Your task to perform on an android device: Clear the shopping cart on ebay. Search for dell xps on ebay, select the first entry, and add it to the cart. Image 0: 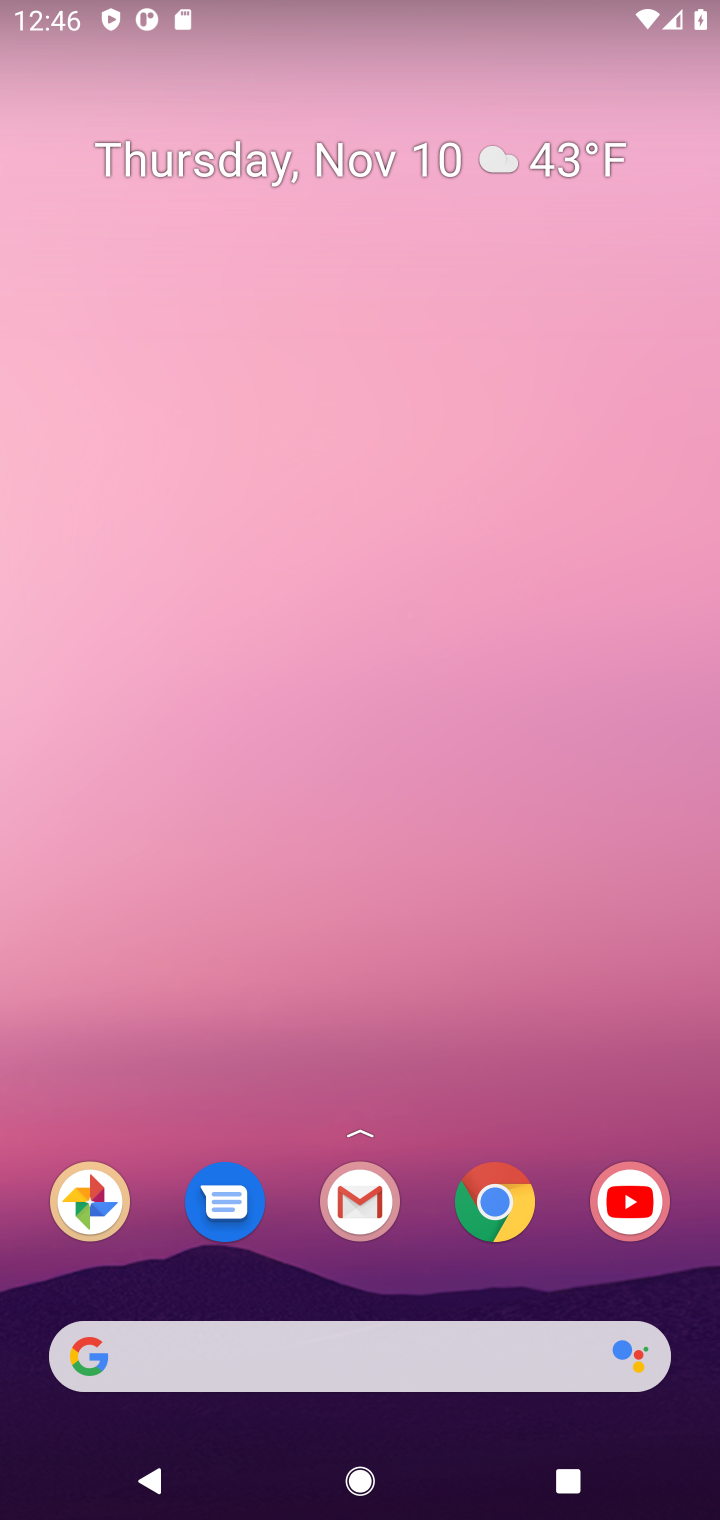
Step 0: click (494, 1191)
Your task to perform on an android device: Clear the shopping cart on ebay. Search for dell xps on ebay, select the first entry, and add it to the cart. Image 1: 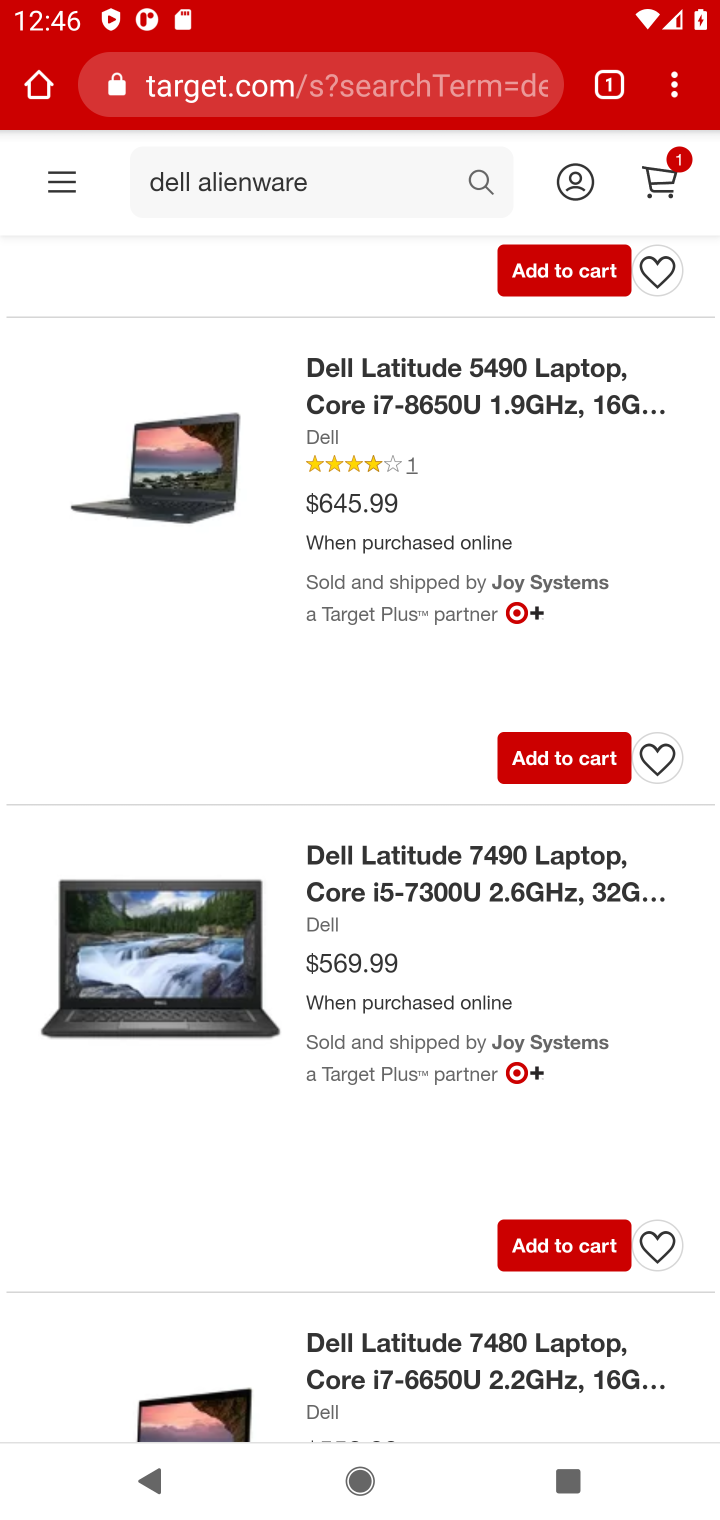
Step 1: click (450, 83)
Your task to perform on an android device: Clear the shopping cart on ebay. Search for dell xps on ebay, select the first entry, and add it to the cart. Image 2: 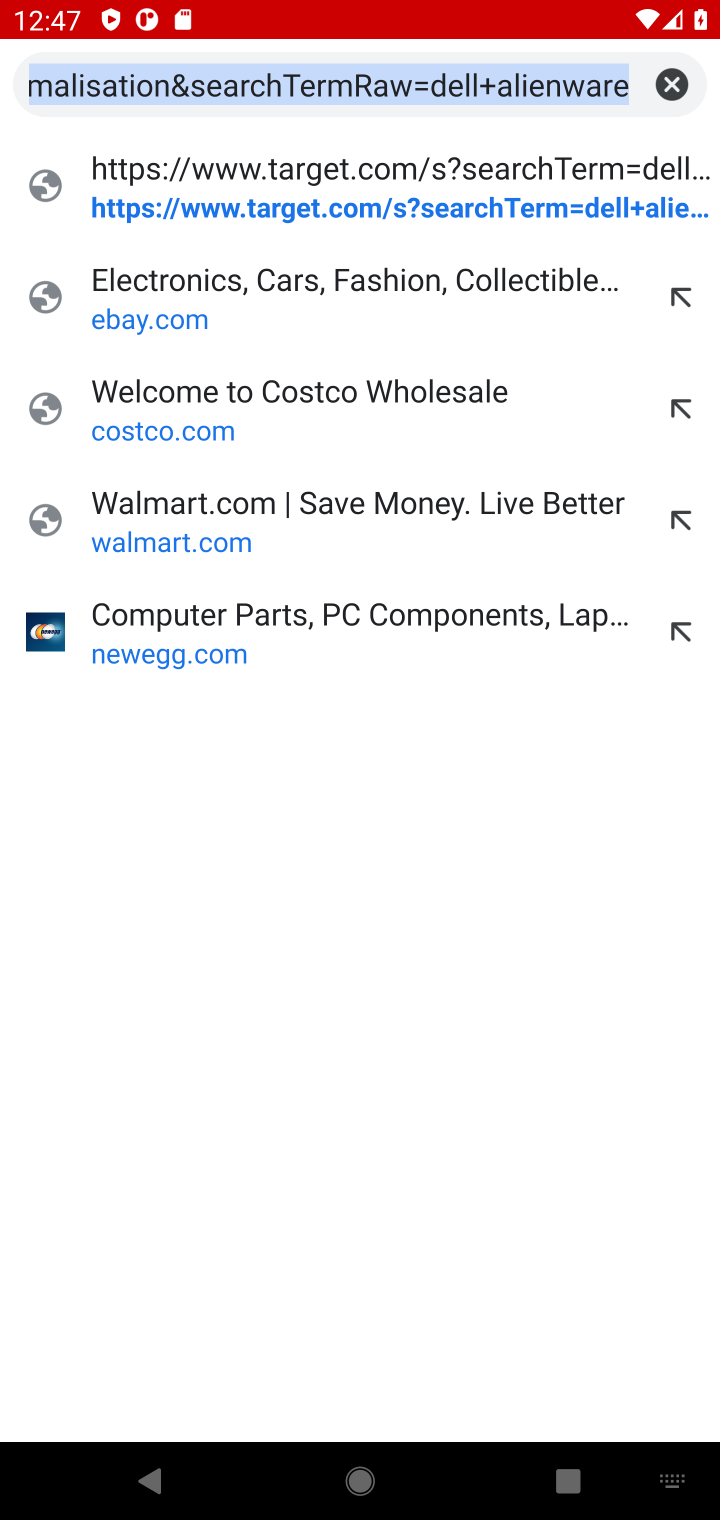
Step 2: click (427, 265)
Your task to perform on an android device: Clear the shopping cart on ebay. Search for dell xps on ebay, select the first entry, and add it to the cart. Image 3: 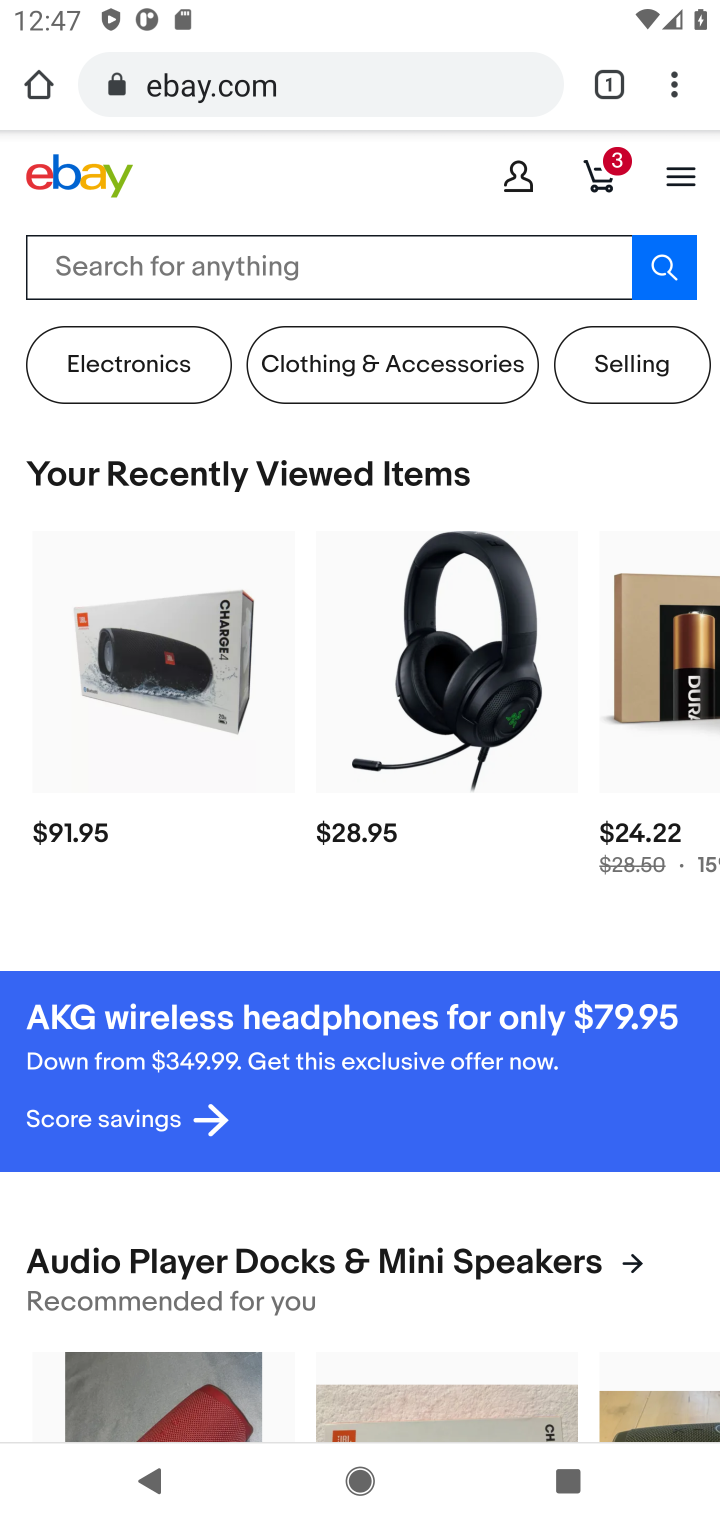
Step 3: click (599, 173)
Your task to perform on an android device: Clear the shopping cart on ebay. Search for dell xps on ebay, select the first entry, and add it to the cart. Image 4: 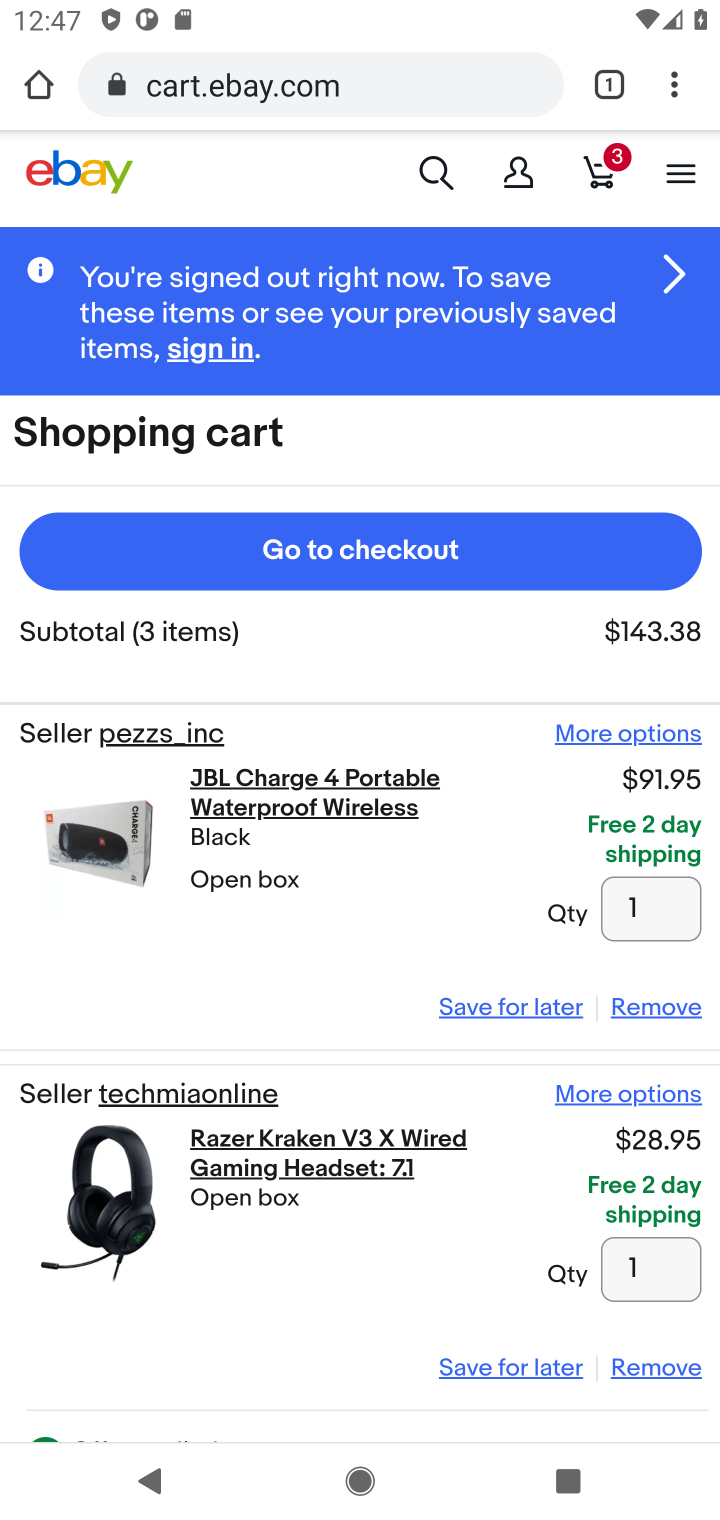
Step 4: click (654, 1003)
Your task to perform on an android device: Clear the shopping cart on ebay. Search for dell xps on ebay, select the first entry, and add it to the cart. Image 5: 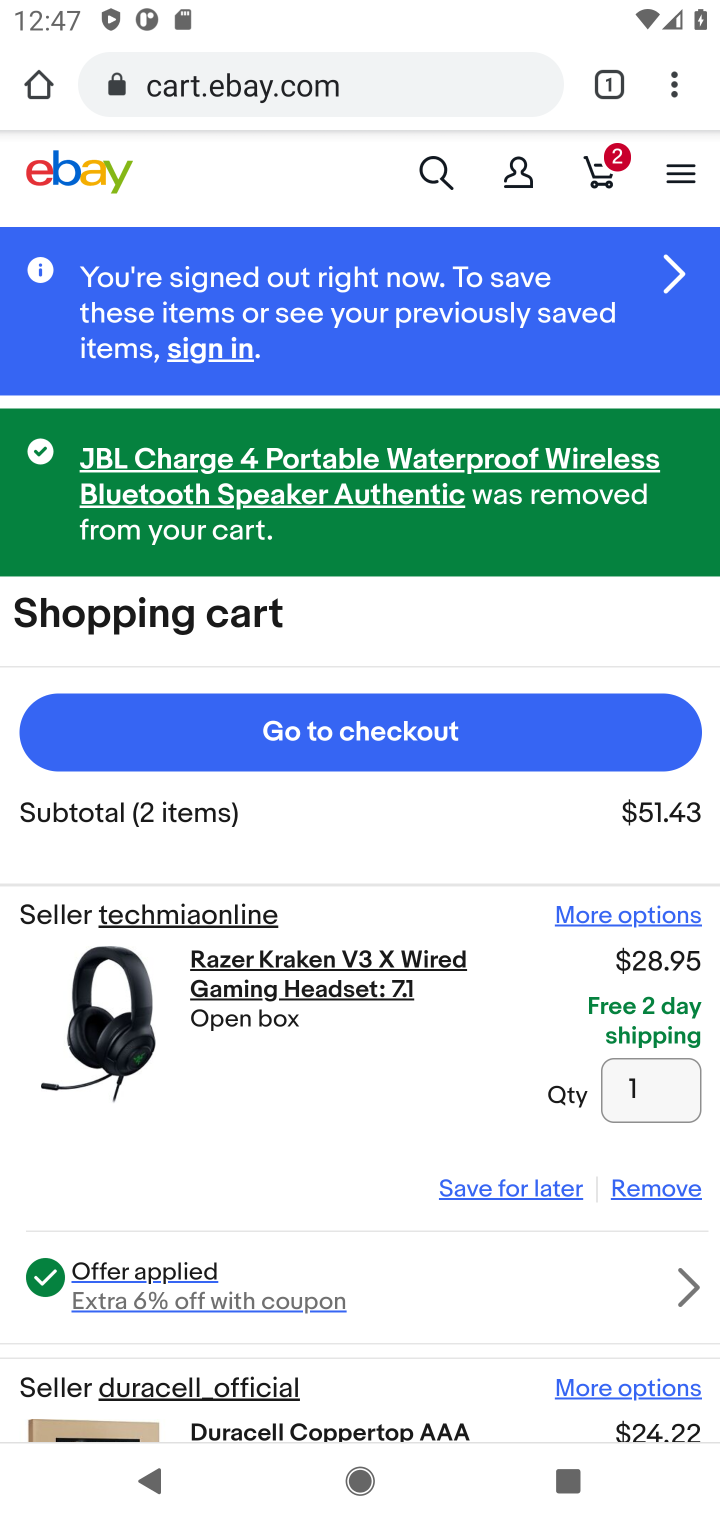
Step 5: click (651, 1189)
Your task to perform on an android device: Clear the shopping cart on ebay. Search for dell xps on ebay, select the first entry, and add it to the cart. Image 6: 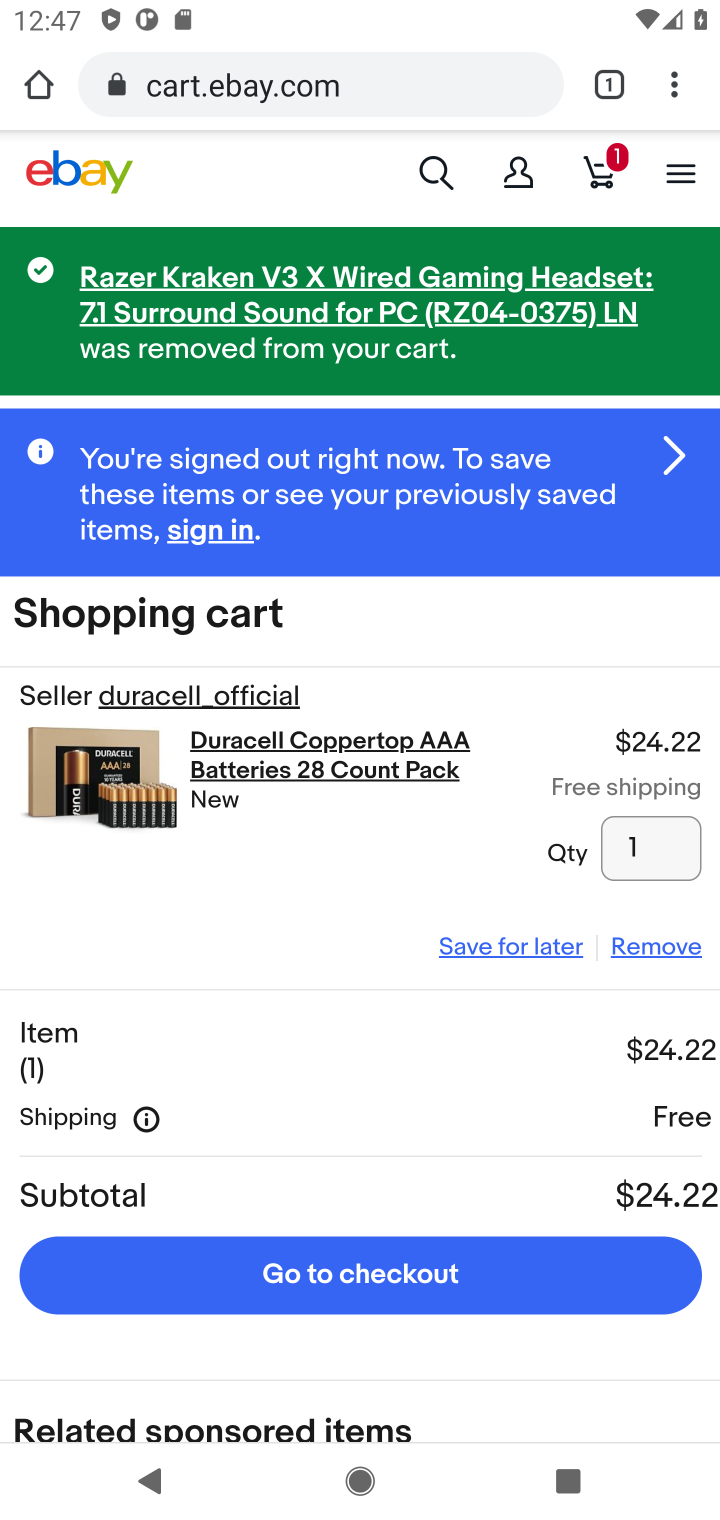
Step 6: click (650, 942)
Your task to perform on an android device: Clear the shopping cart on ebay. Search for dell xps on ebay, select the first entry, and add it to the cart. Image 7: 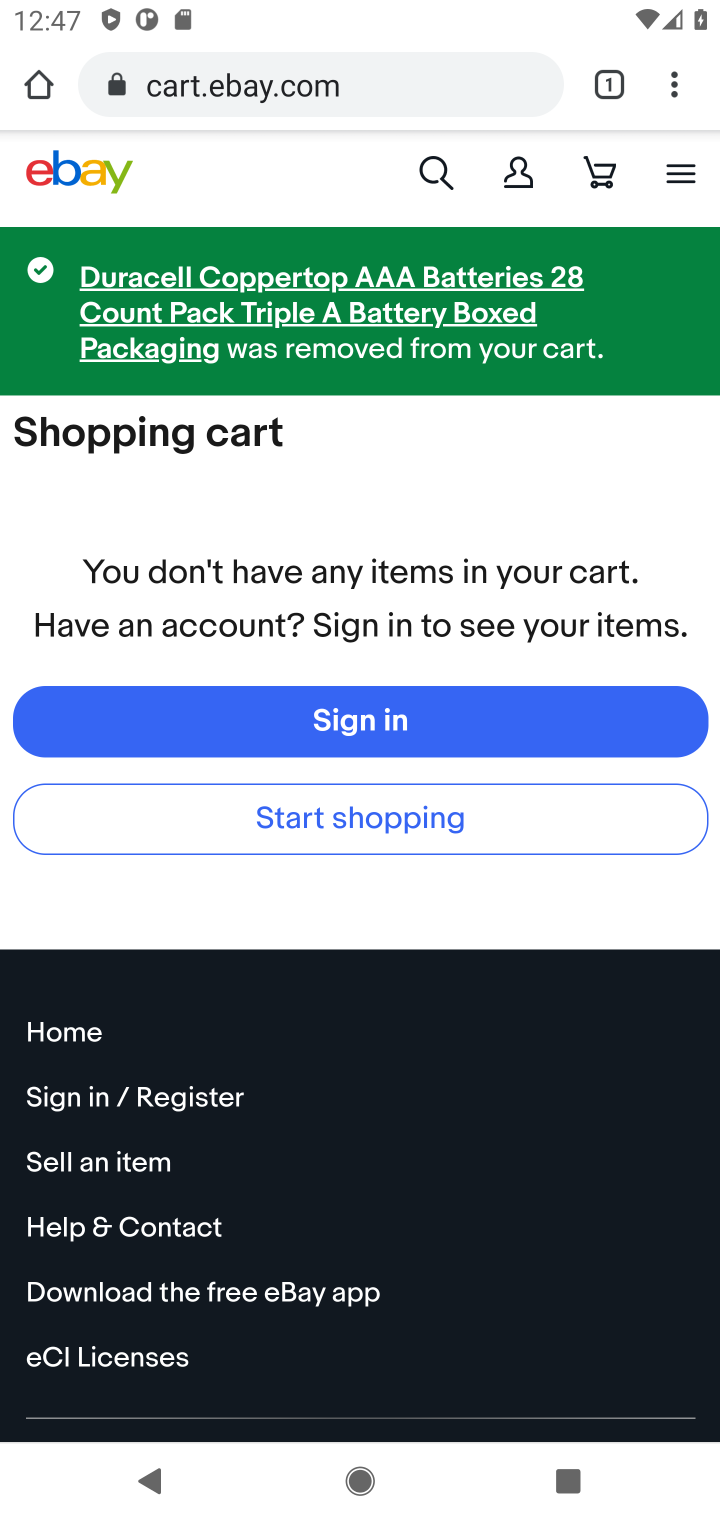
Step 7: click (425, 153)
Your task to perform on an android device: Clear the shopping cart on ebay. Search for dell xps on ebay, select the first entry, and add it to the cart. Image 8: 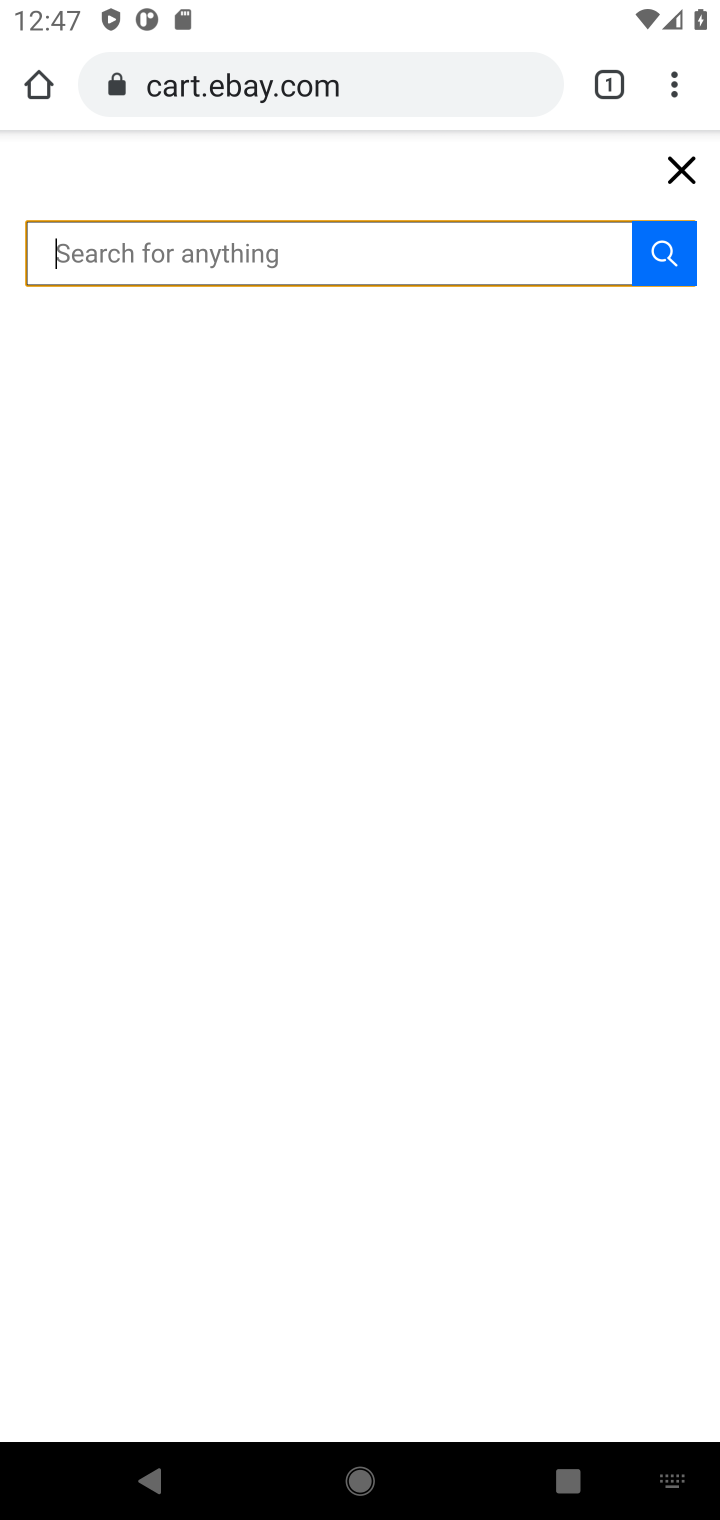
Step 8: type "dell xps "
Your task to perform on an android device: Clear the shopping cart on ebay. Search for dell xps on ebay, select the first entry, and add it to the cart. Image 9: 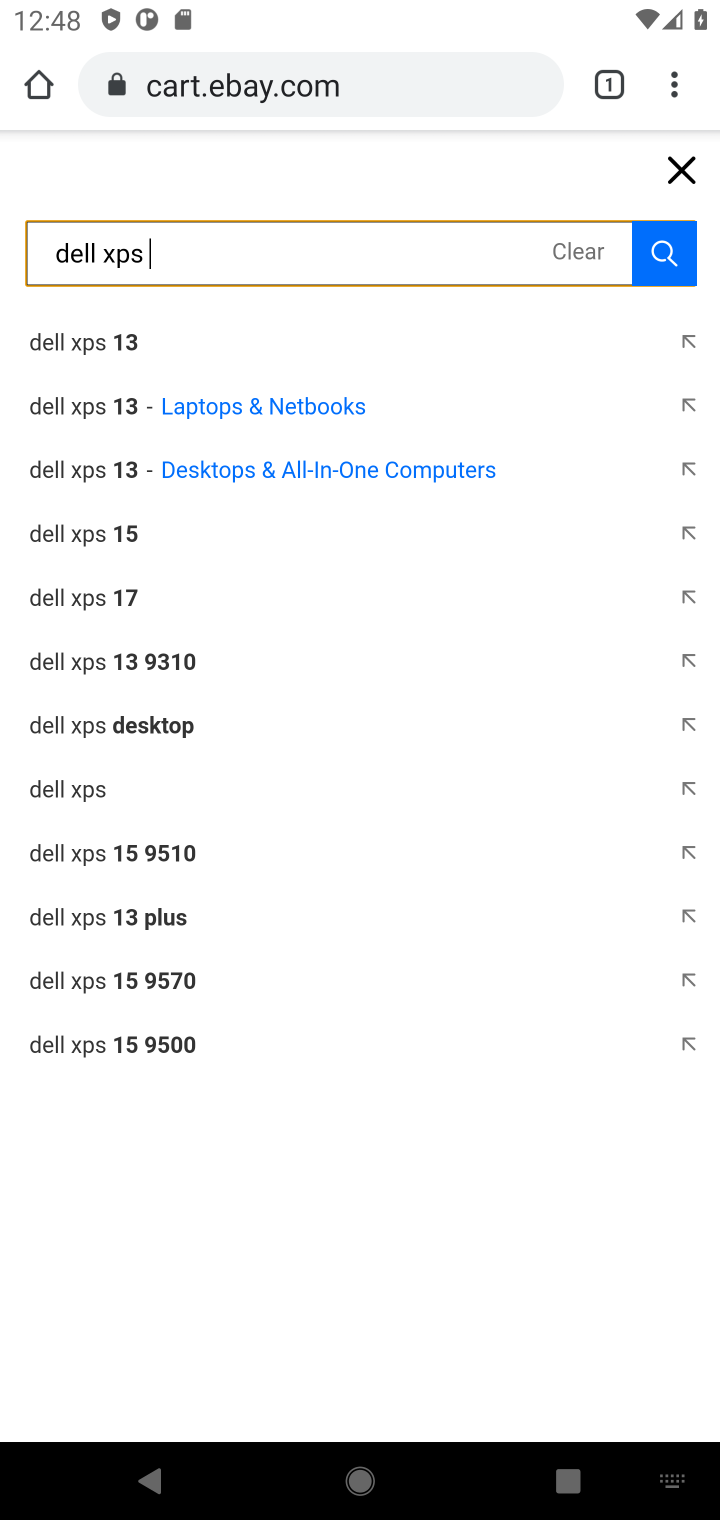
Step 9: click (77, 776)
Your task to perform on an android device: Clear the shopping cart on ebay. Search for dell xps on ebay, select the first entry, and add it to the cart. Image 10: 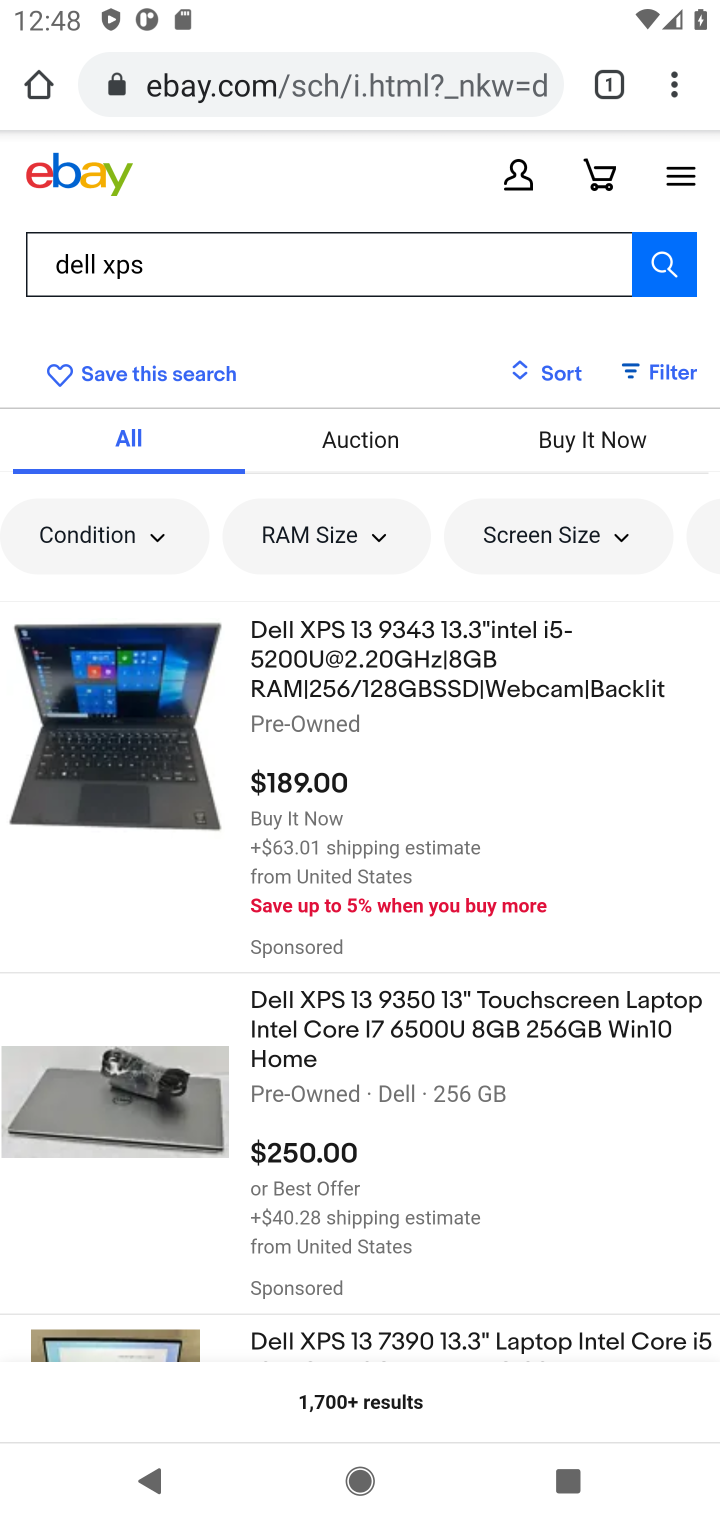
Step 10: click (138, 718)
Your task to perform on an android device: Clear the shopping cart on ebay. Search for dell xps on ebay, select the first entry, and add it to the cart. Image 11: 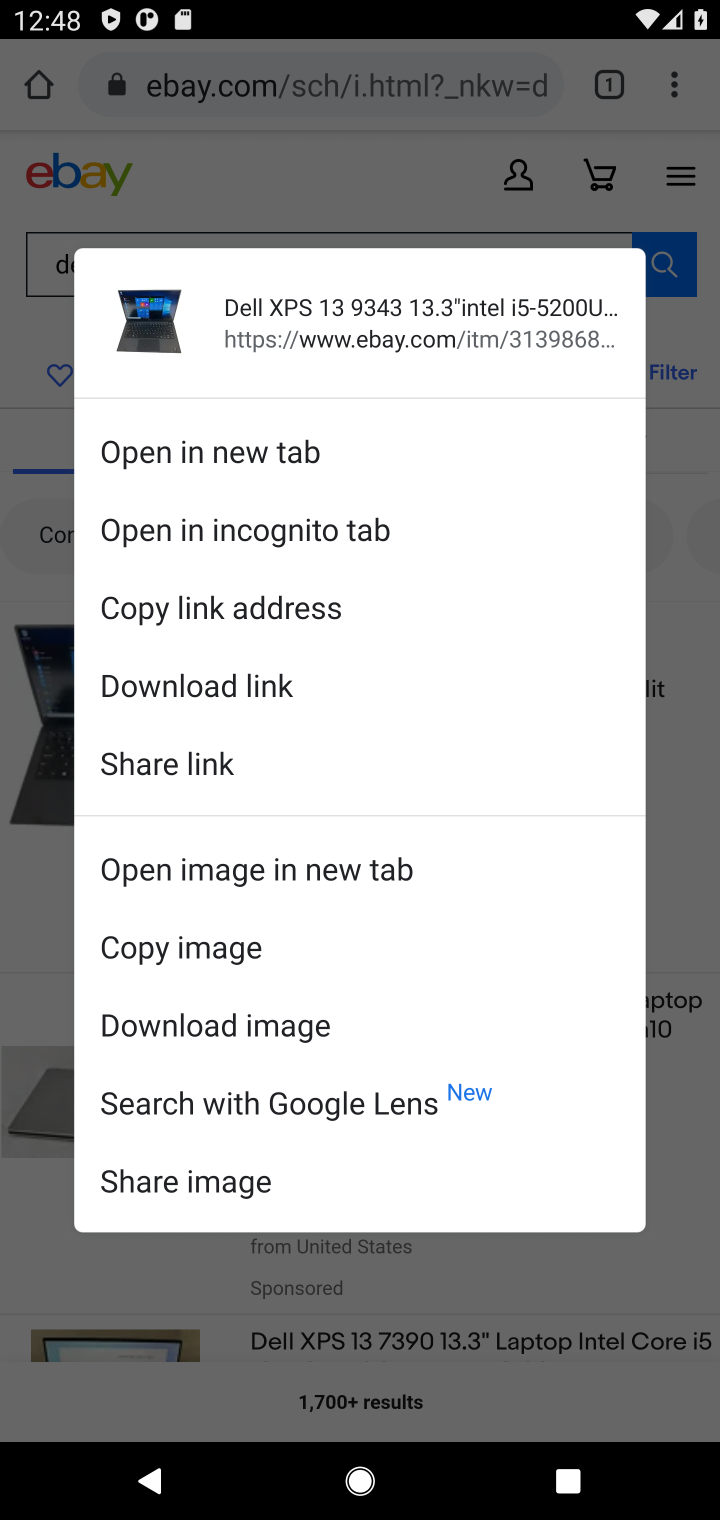
Step 11: click (58, 692)
Your task to perform on an android device: Clear the shopping cart on ebay. Search for dell xps on ebay, select the first entry, and add it to the cart. Image 12: 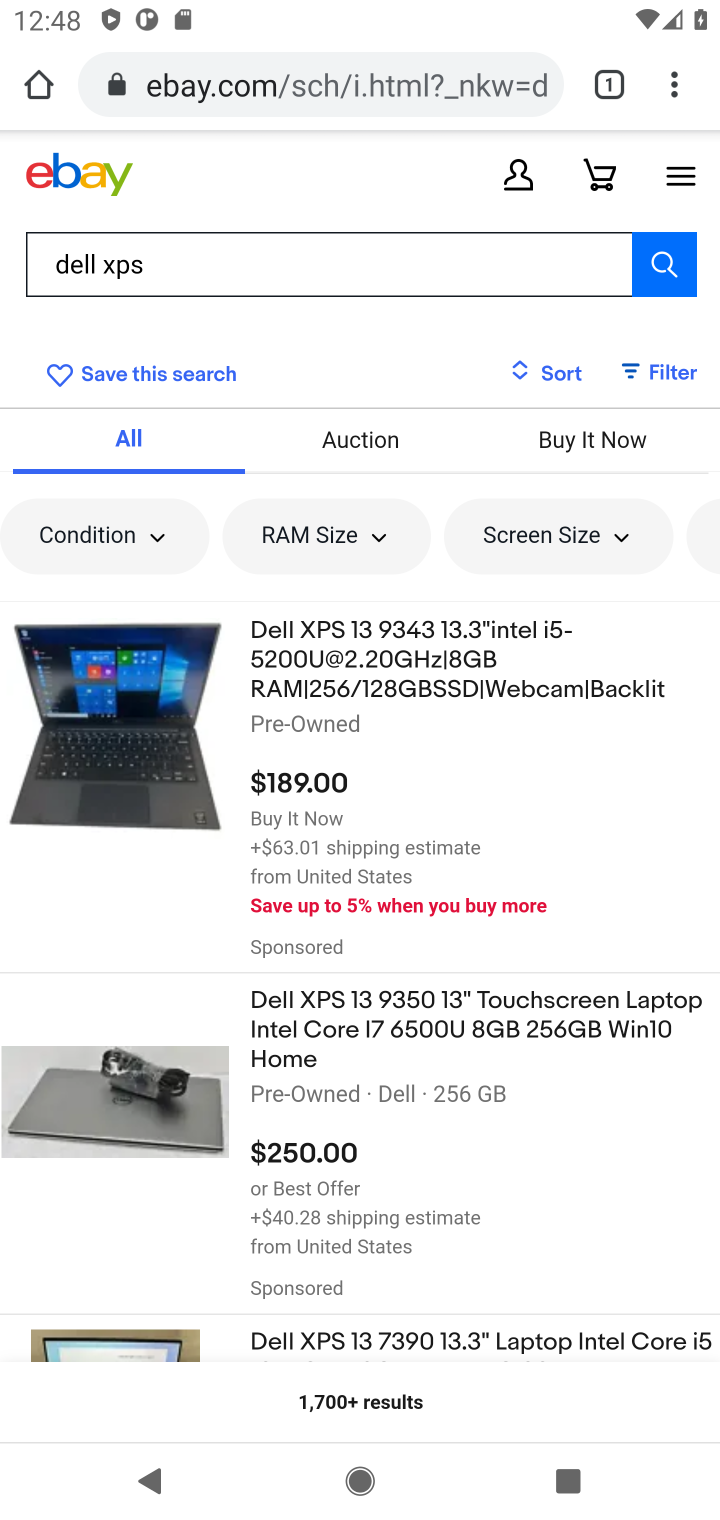
Step 12: click (58, 692)
Your task to perform on an android device: Clear the shopping cart on ebay. Search for dell xps on ebay, select the first entry, and add it to the cart. Image 13: 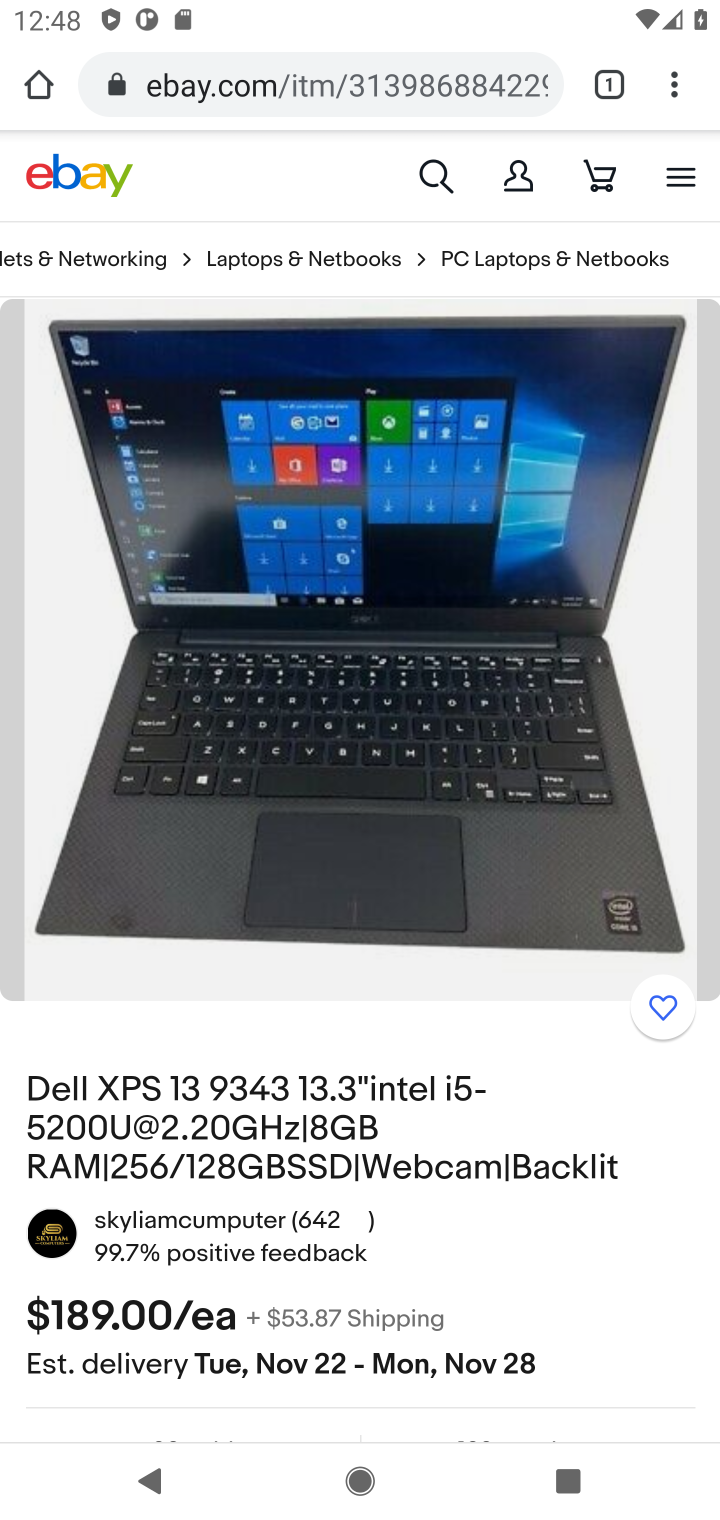
Step 13: drag from (554, 960) to (525, 561)
Your task to perform on an android device: Clear the shopping cart on ebay. Search for dell xps on ebay, select the first entry, and add it to the cart. Image 14: 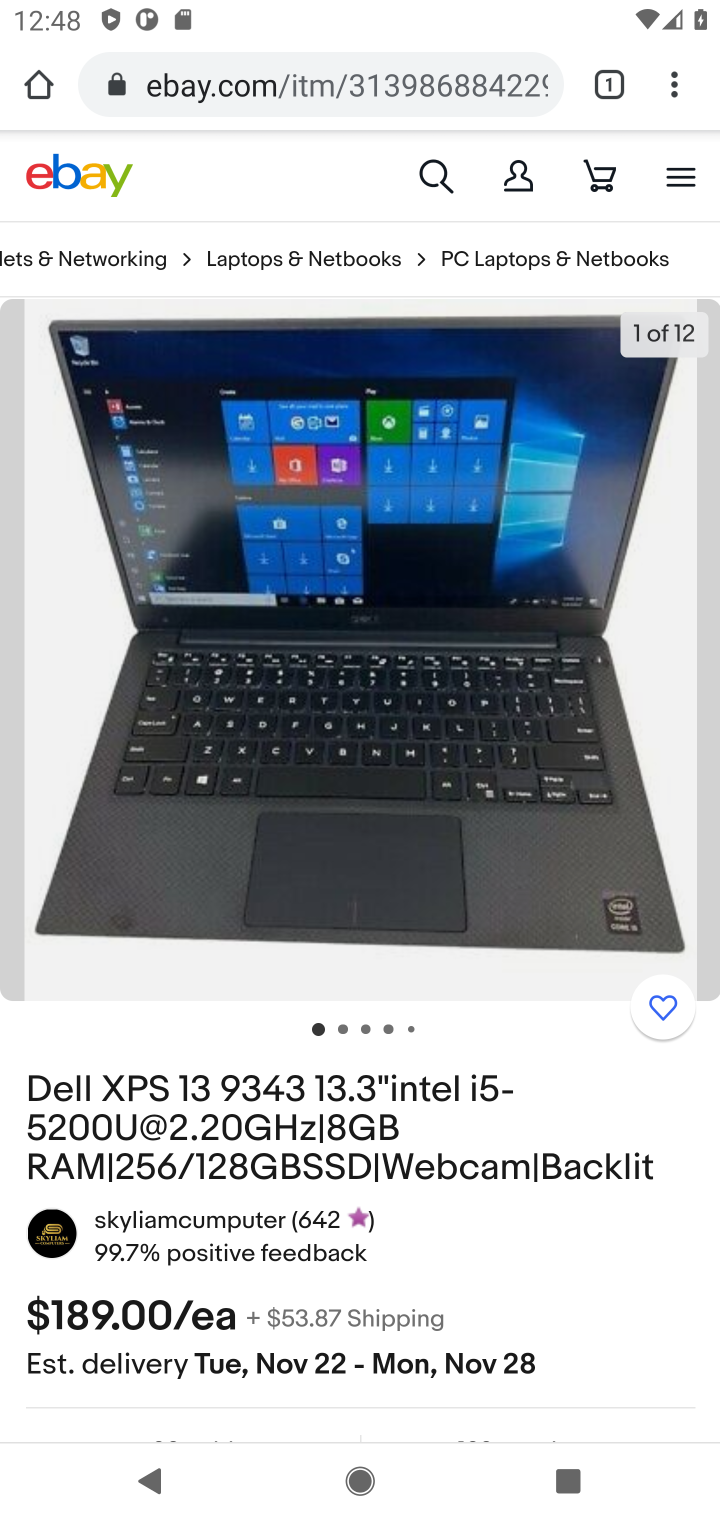
Step 14: drag from (482, 959) to (506, 597)
Your task to perform on an android device: Clear the shopping cart on ebay. Search for dell xps on ebay, select the first entry, and add it to the cart. Image 15: 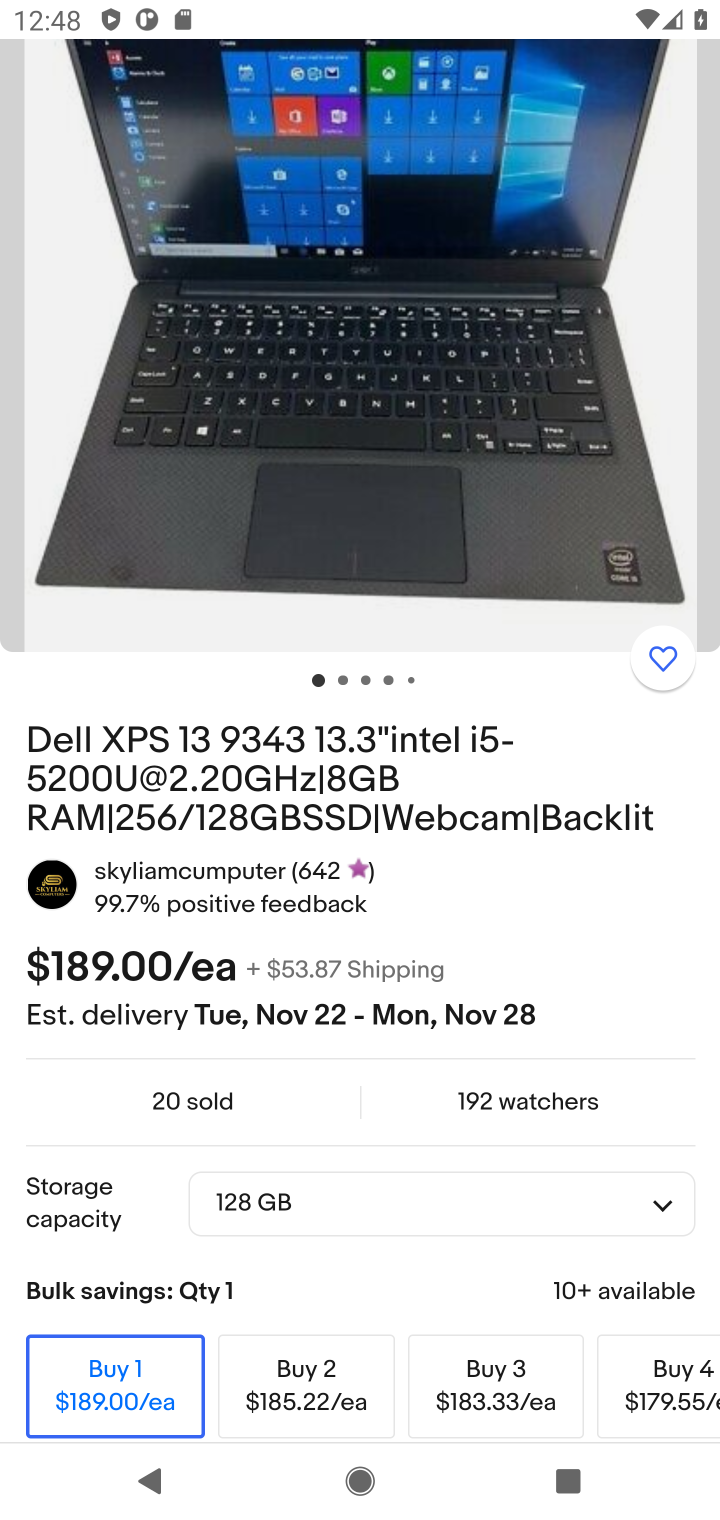
Step 15: drag from (428, 929) to (521, 549)
Your task to perform on an android device: Clear the shopping cart on ebay. Search for dell xps on ebay, select the first entry, and add it to the cart. Image 16: 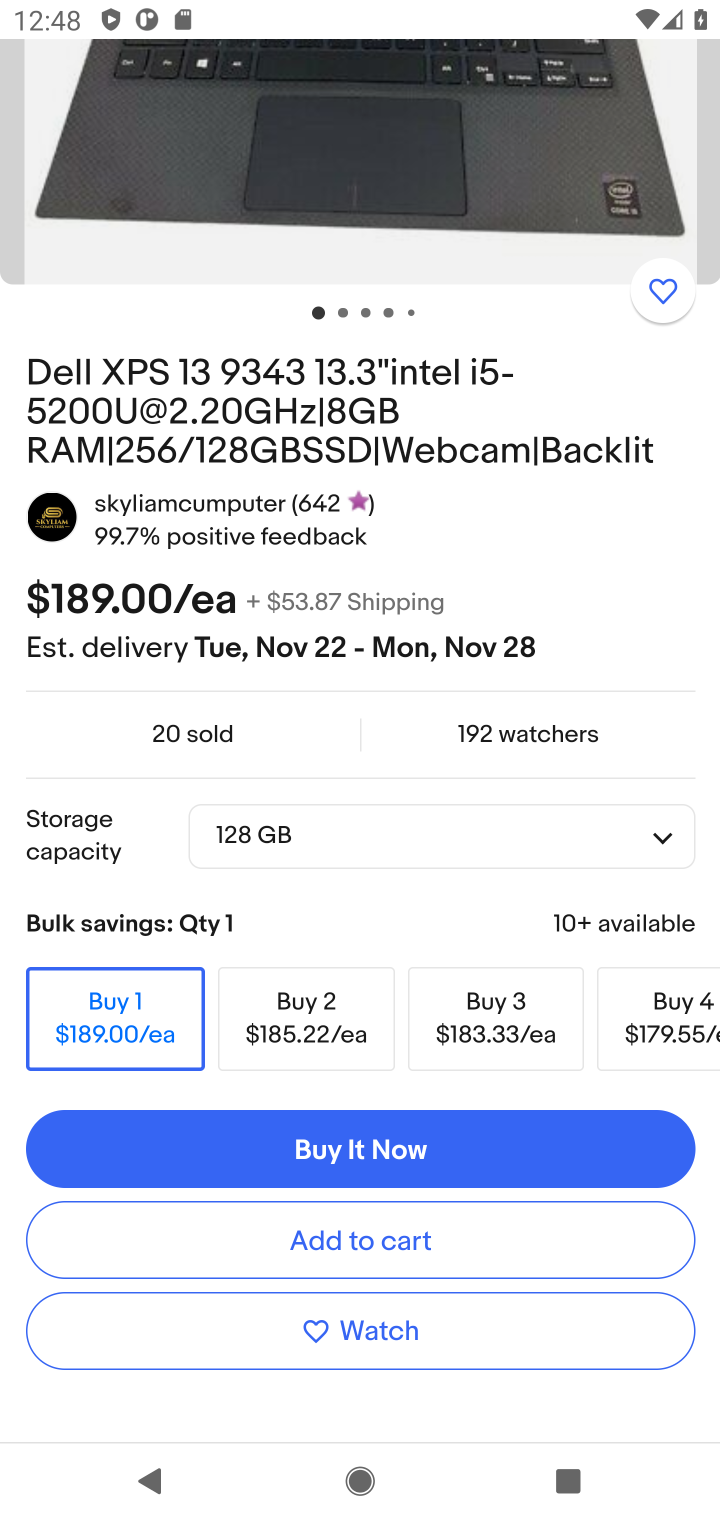
Step 16: click (397, 1228)
Your task to perform on an android device: Clear the shopping cart on ebay. Search for dell xps on ebay, select the first entry, and add it to the cart. Image 17: 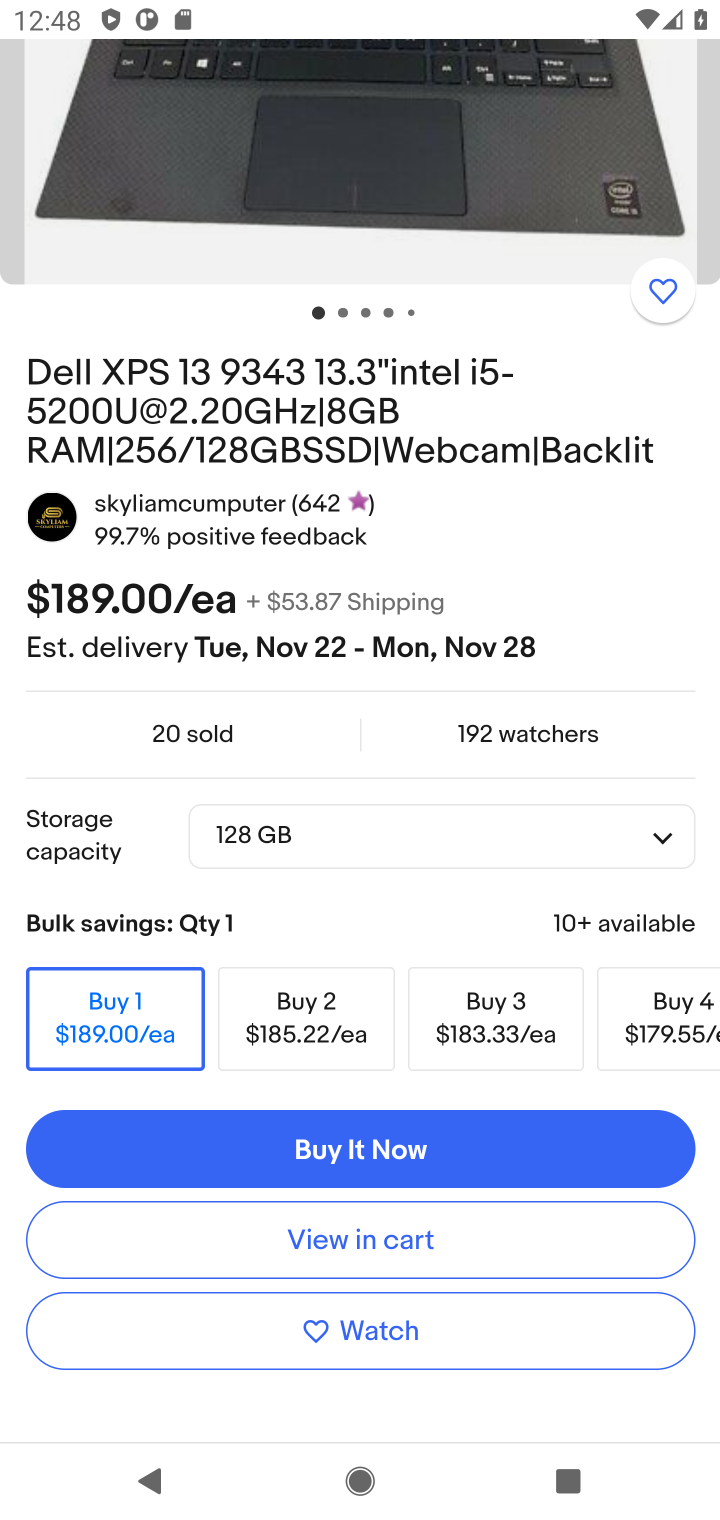
Step 17: task complete